Your task to perform on an android device: Open Wikipedia Image 0: 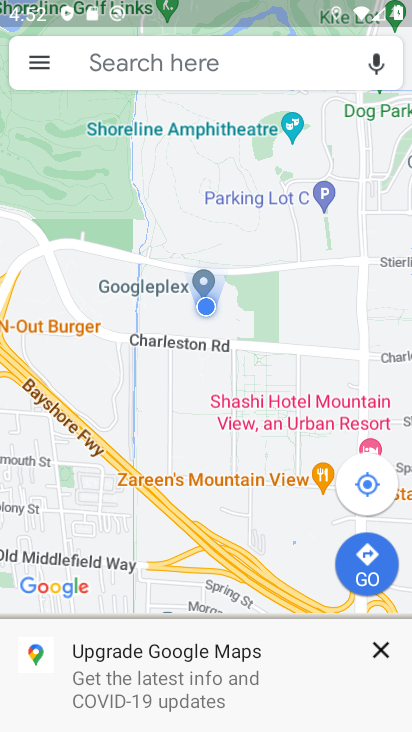
Step 0: press home button
Your task to perform on an android device: Open Wikipedia Image 1: 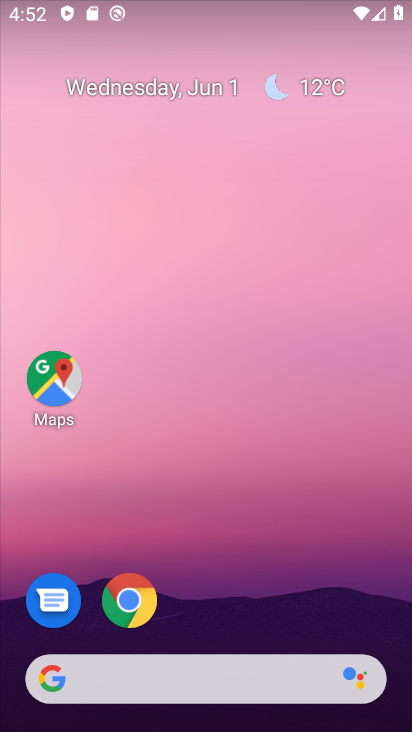
Step 1: click (129, 599)
Your task to perform on an android device: Open Wikipedia Image 2: 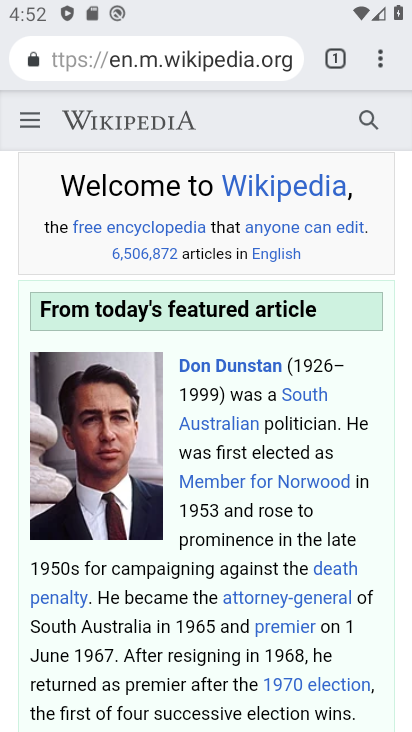
Step 2: task complete